Your task to perform on an android device: star an email in the gmail app Image 0: 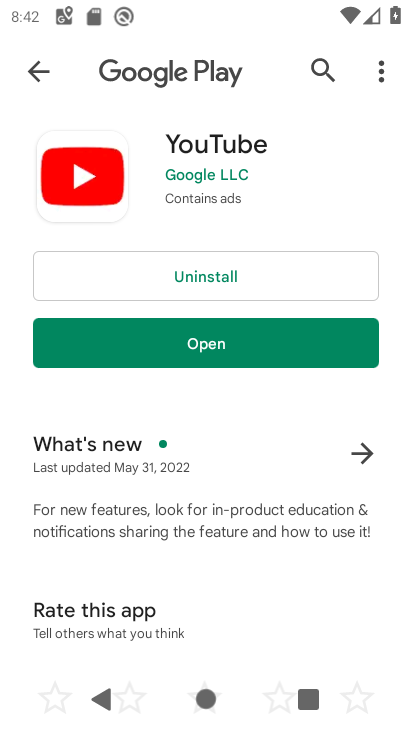
Step 0: press home button
Your task to perform on an android device: star an email in the gmail app Image 1: 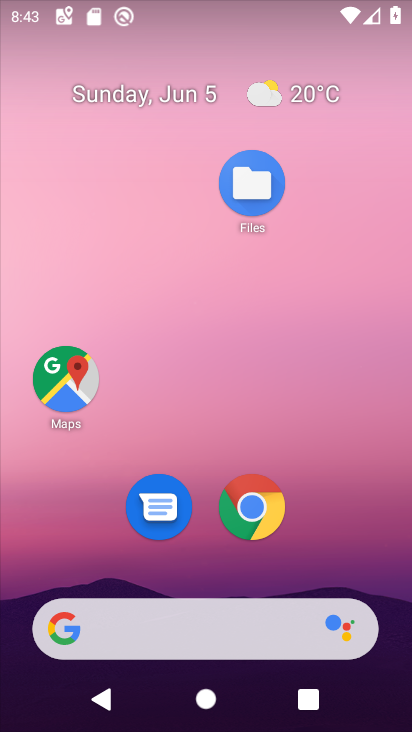
Step 1: drag from (209, 582) to (181, 63)
Your task to perform on an android device: star an email in the gmail app Image 2: 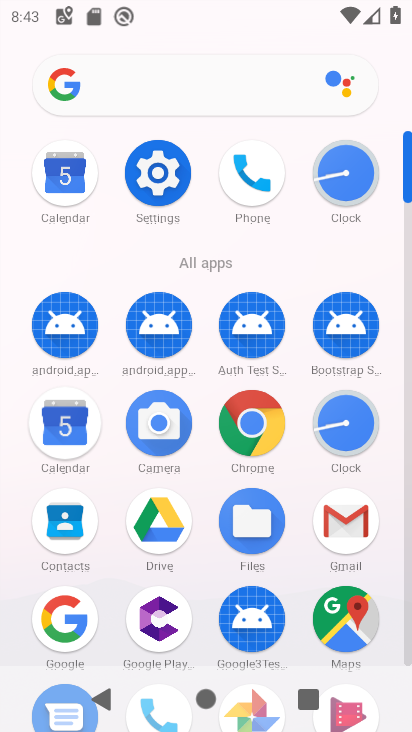
Step 2: click (348, 547)
Your task to perform on an android device: star an email in the gmail app Image 3: 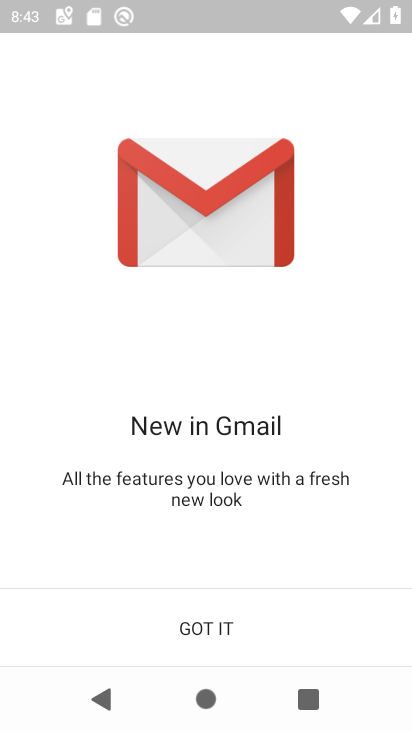
Step 3: click (216, 632)
Your task to perform on an android device: star an email in the gmail app Image 4: 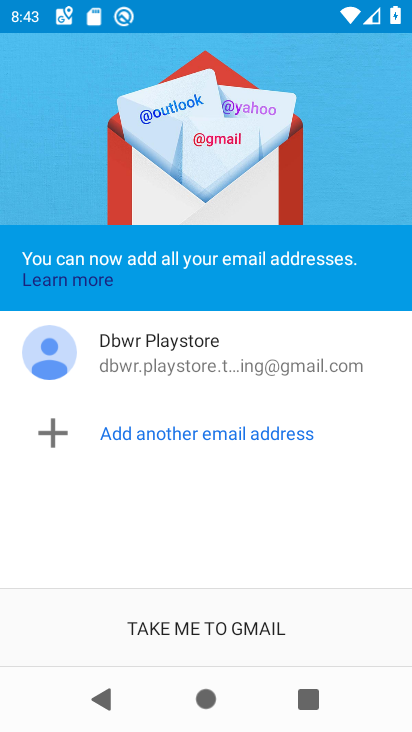
Step 4: click (216, 632)
Your task to perform on an android device: star an email in the gmail app Image 5: 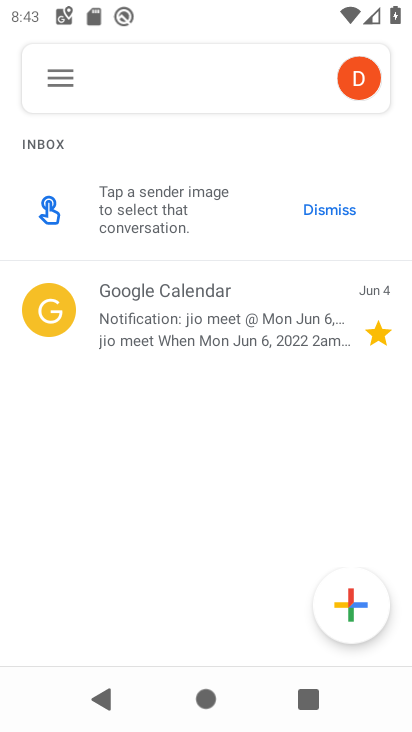
Step 5: click (47, 60)
Your task to perform on an android device: star an email in the gmail app Image 6: 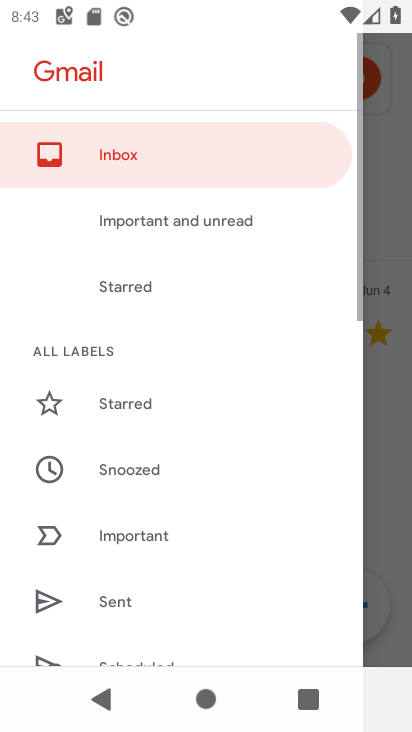
Step 6: click (104, 158)
Your task to perform on an android device: star an email in the gmail app Image 7: 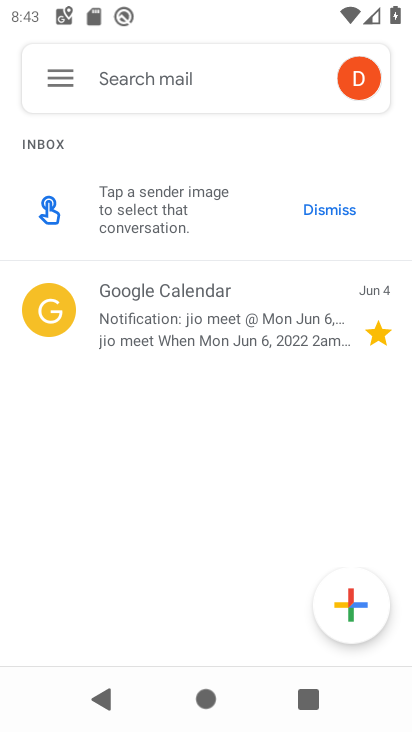
Step 7: task complete